Your task to perform on an android device: set an alarm Image 0: 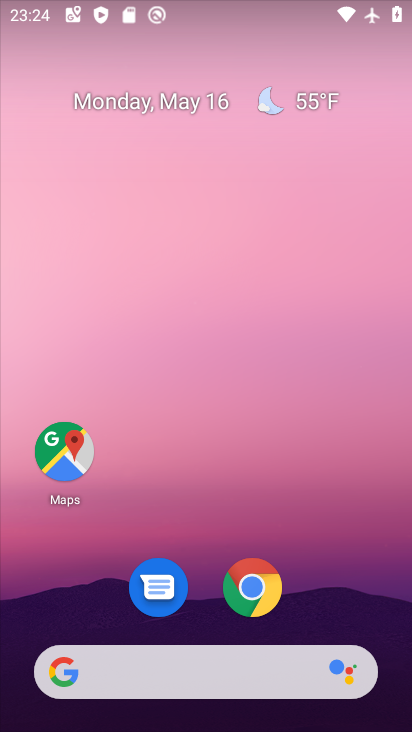
Step 0: drag from (343, 521) to (294, 1)
Your task to perform on an android device: set an alarm Image 1: 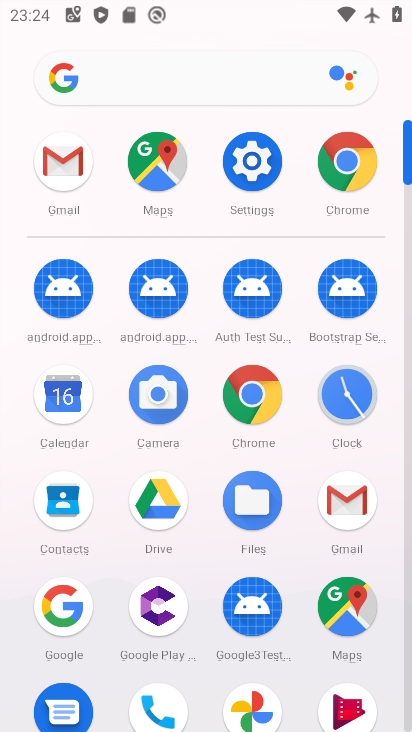
Step 1: drag from (23, 606) to (19, 261)
Your task to perform on an android device: set an alarm Image 2: 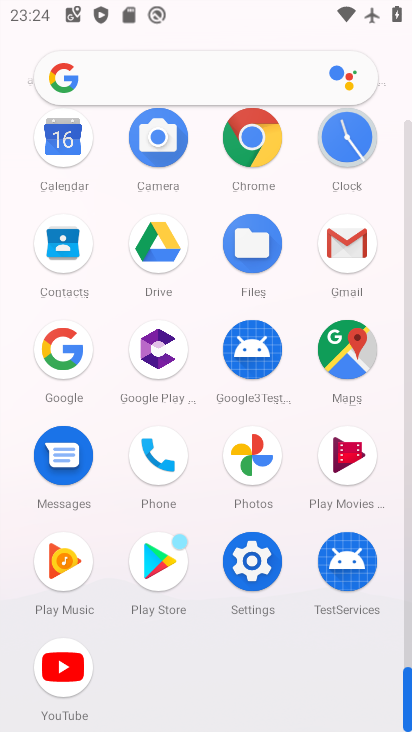
Step 2: drag from (11, 579) to (14, 288)
Your task to perform on an android device: set an alarm Image 3: 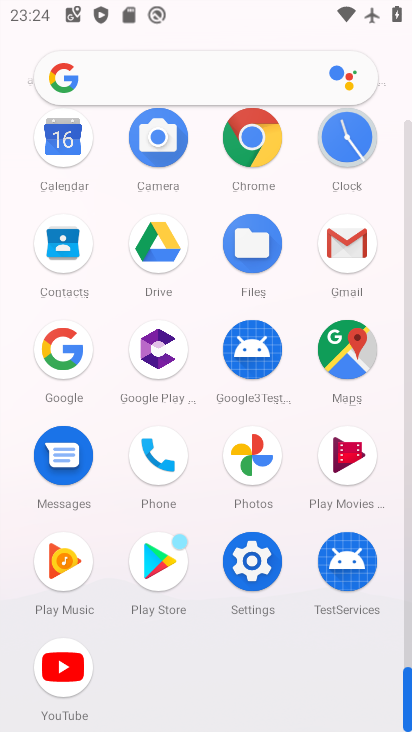
Step 3: click (340, 130)
Your task to perform on an android device: set an alarm Image 4: 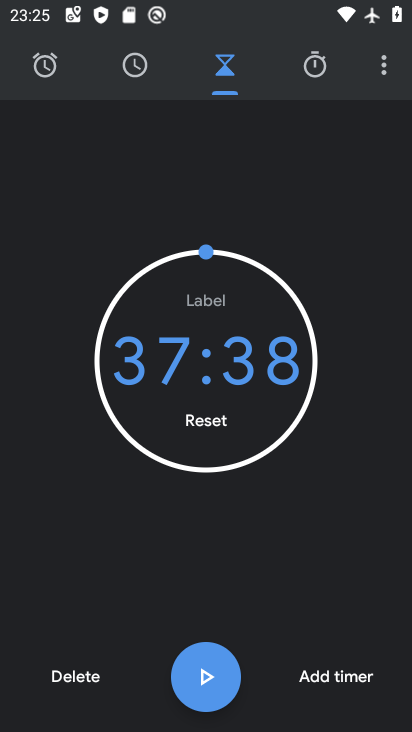
Step 4: click (37, 64)
Your task to perform on an android device: set an alarm Image 5: 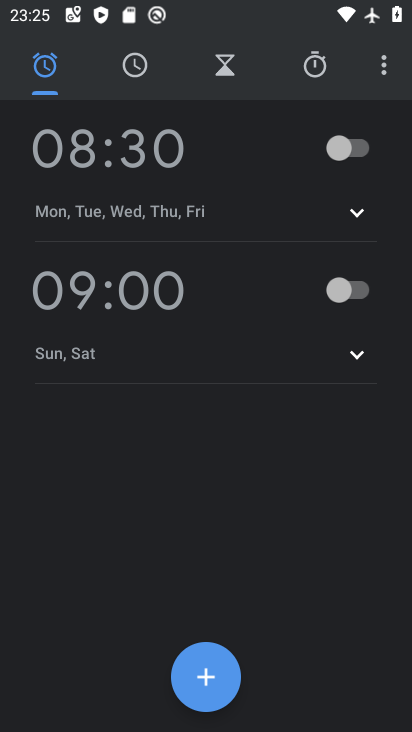
Step 5: click (205, 668)
Your task to perform on an android device: set an alarm Image 6: 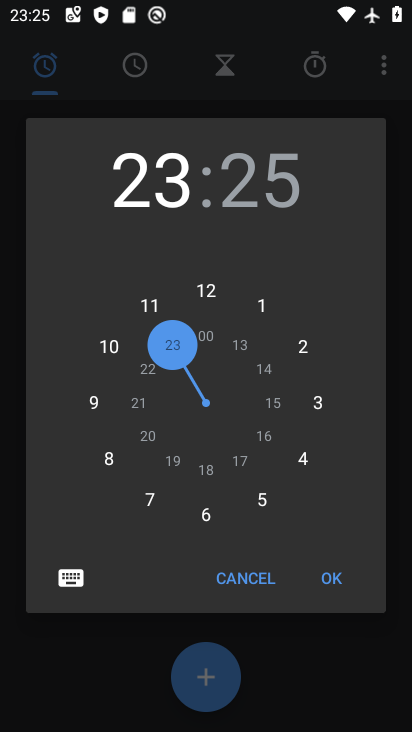
Step 6: click (334, 573)
Your task to perform on an android device: set an alarm Image 7: 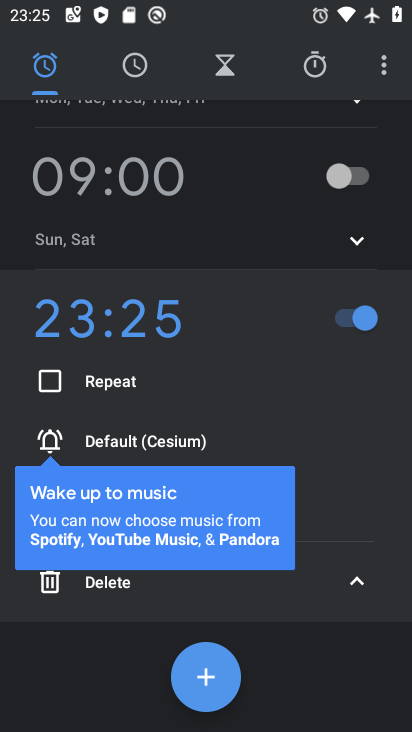
Step 7: task complete